Your task to perform on an android device: Find coffee shops on Maps Image 0: 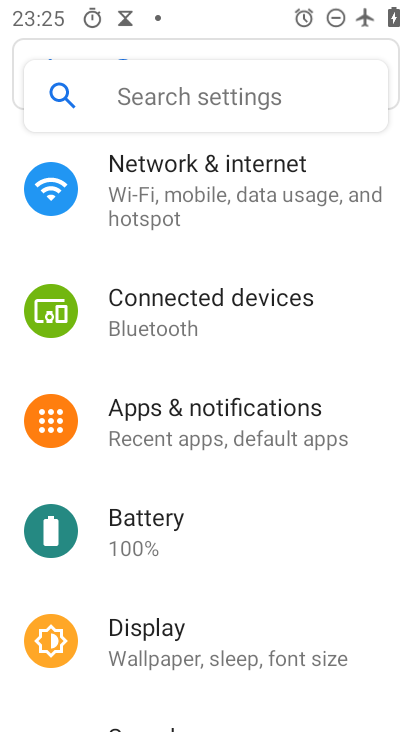
Step 0: press home button
Your task to perform on an android device: Find coffee shops on Maps Image 1: 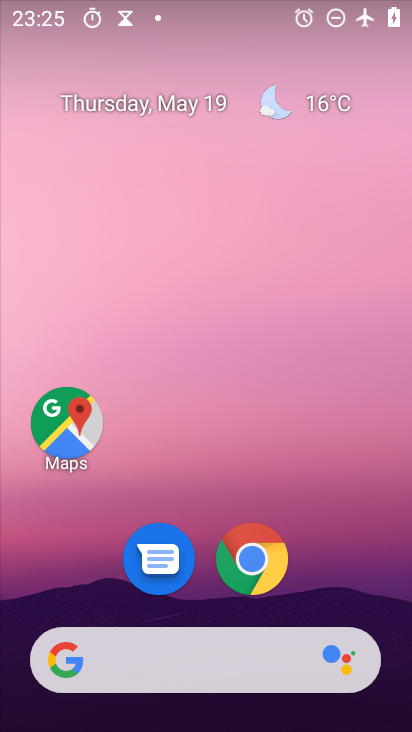
Step 1: drag from (219, 716) to (224, 146)
Your task to perform on an android device: Find coffee shops on Maps Image 2: 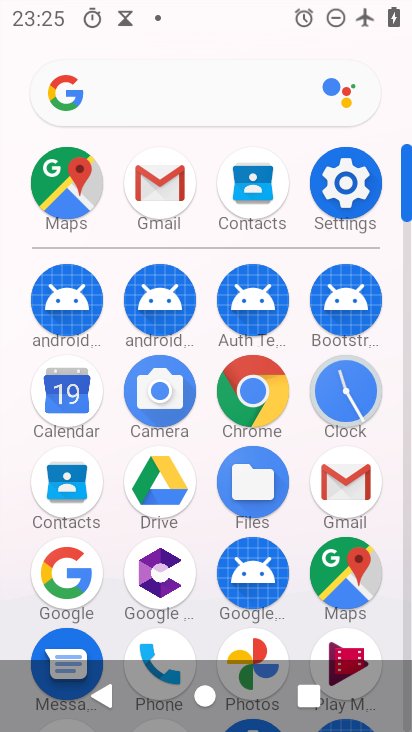
Step 2: click (356, 566)
Your task to perform on an android device: Find coffee shops on Maps Image 3: 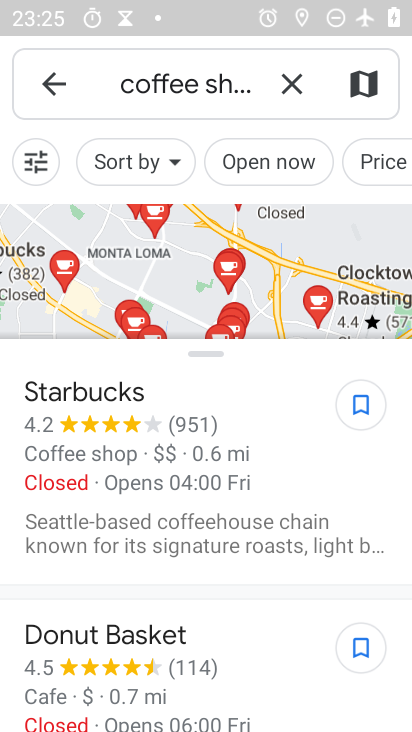
Step 3: task complete